Your task to perform on an android device: Open network settings Image 0: 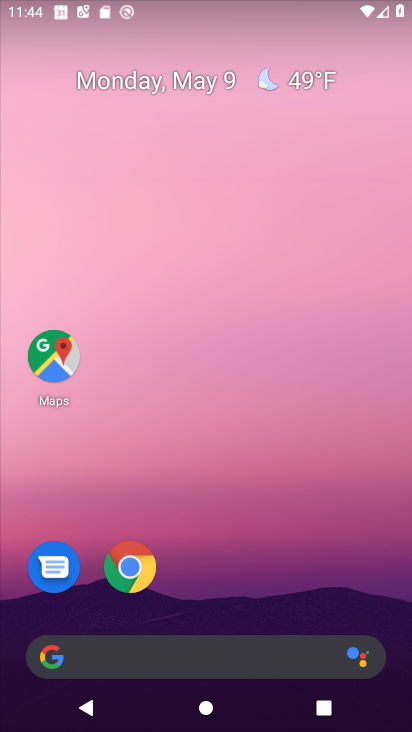
Step 0: drag from (260, 635) to (274, 143)
Your task to perform on an android device: Open network settings Image 1: 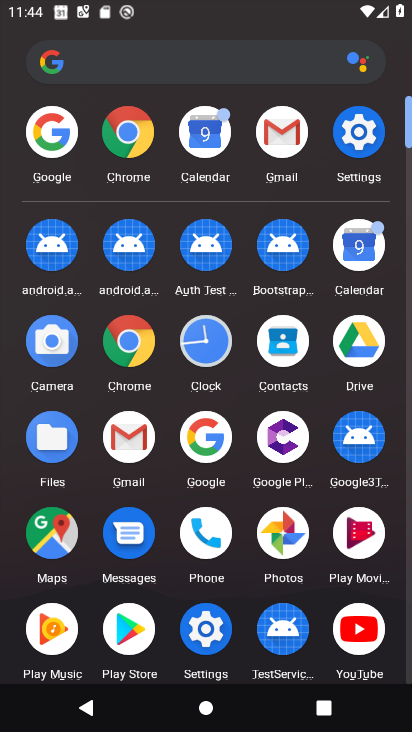
Step 1: click (356, 145)
Your task to perform on an android device: Open network settings Image 2: 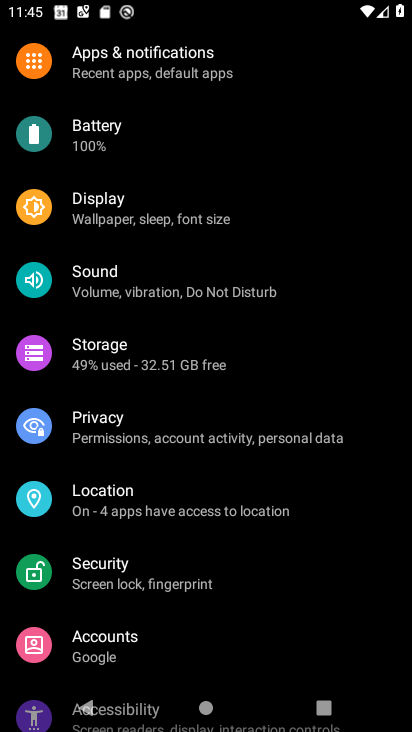
Step 2: drag from (160, 64) to (166, 484)
Your task to perform on an android device: Open network settings Image 3: 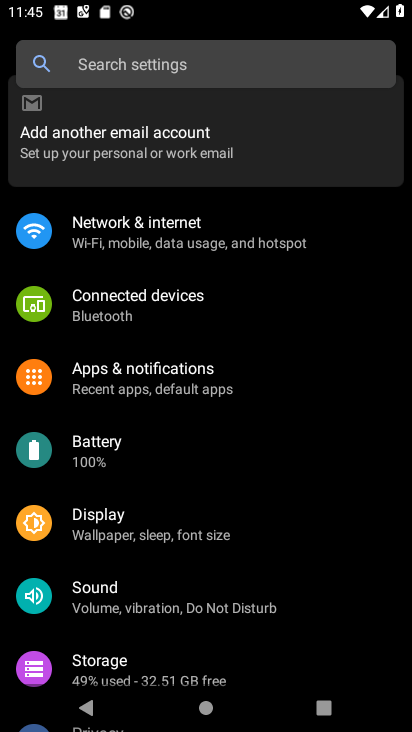
Step 3: click (144, 244)
Your task to perform on an android device: Open network settings Image 4: 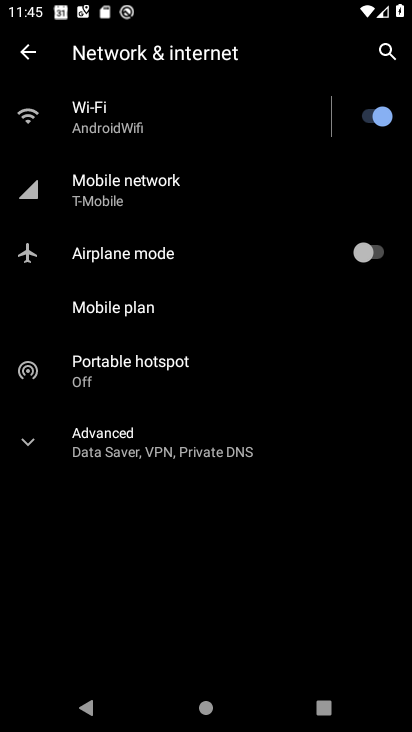
Step 4: click (144, 178)
Your task to perform on an android device: Open network settings Image 5: 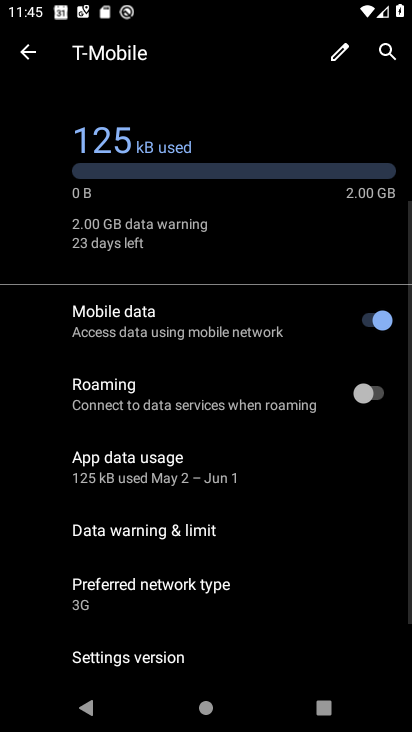
Step 5: task complete